Your task to perform on an android device: allow cookies in the chrome app Image 0: 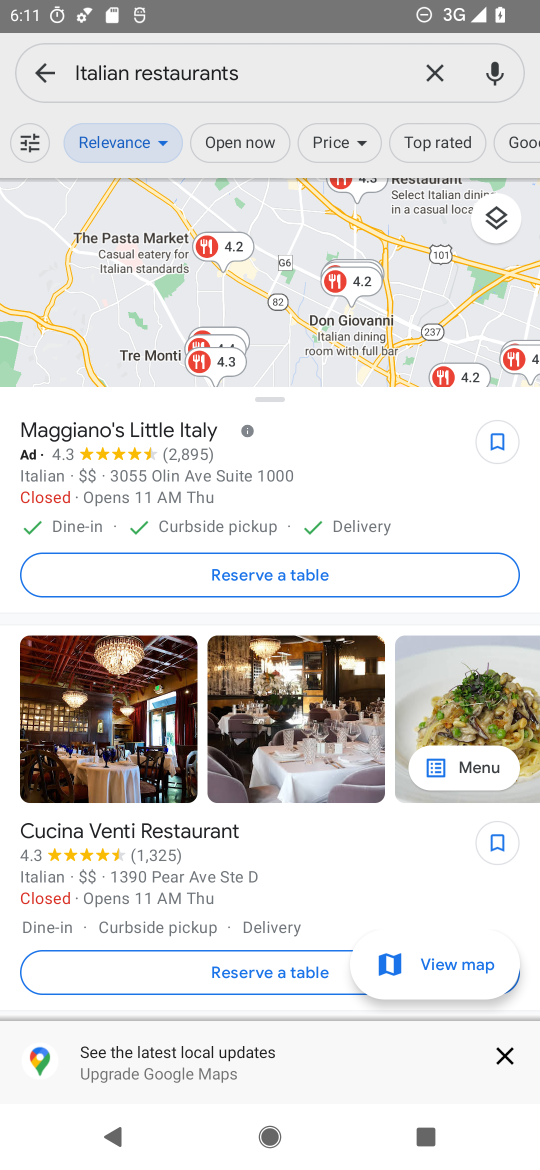
Step 0: press home button
Your task to perform on an android device: allow cookies in the chrome app Image 1: 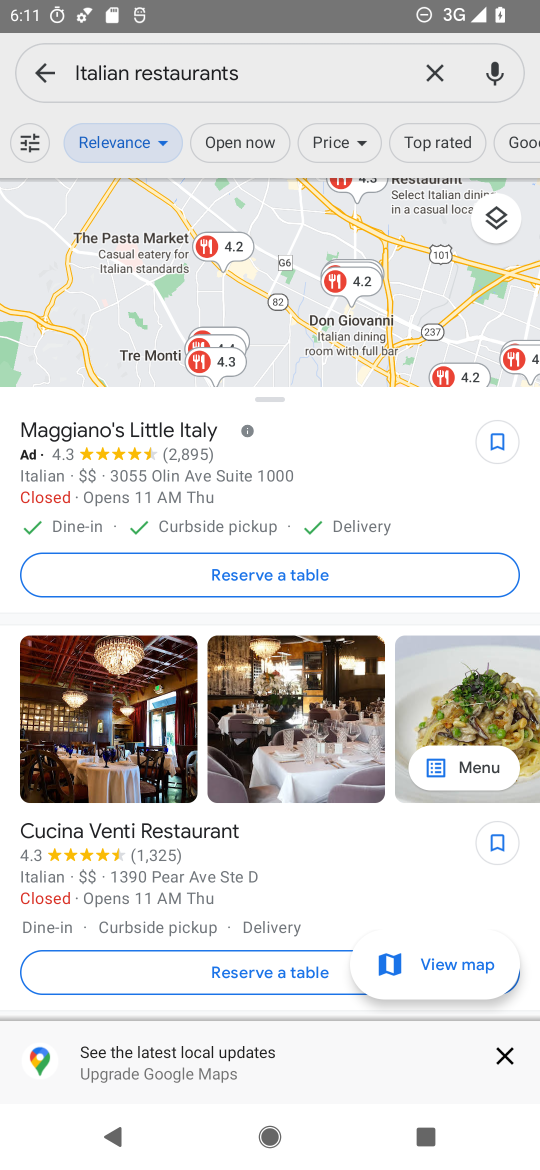
Step 1: press home button
Your task to perform on an android device: allow cookies in the chrome app Image 2: 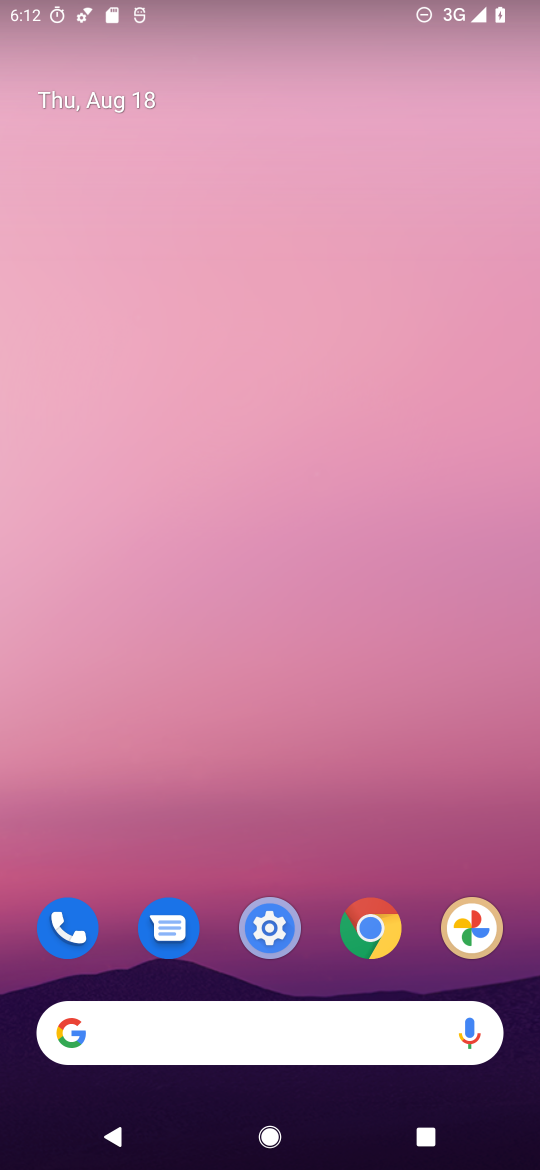
Step 2: drag from (306, 868) to (274, 19)
Your task to perform on an android device: allow cookies in the chrome app Image 3: 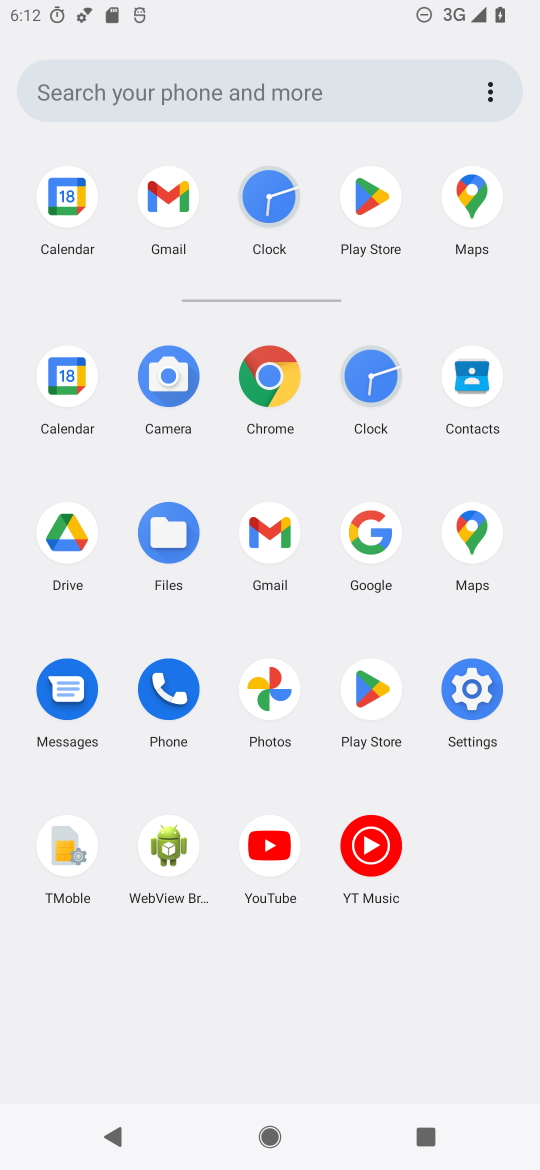
Step 3: click (283, 375)
Your task to perform on an android device: allow cookies in the chrome app Image 4: 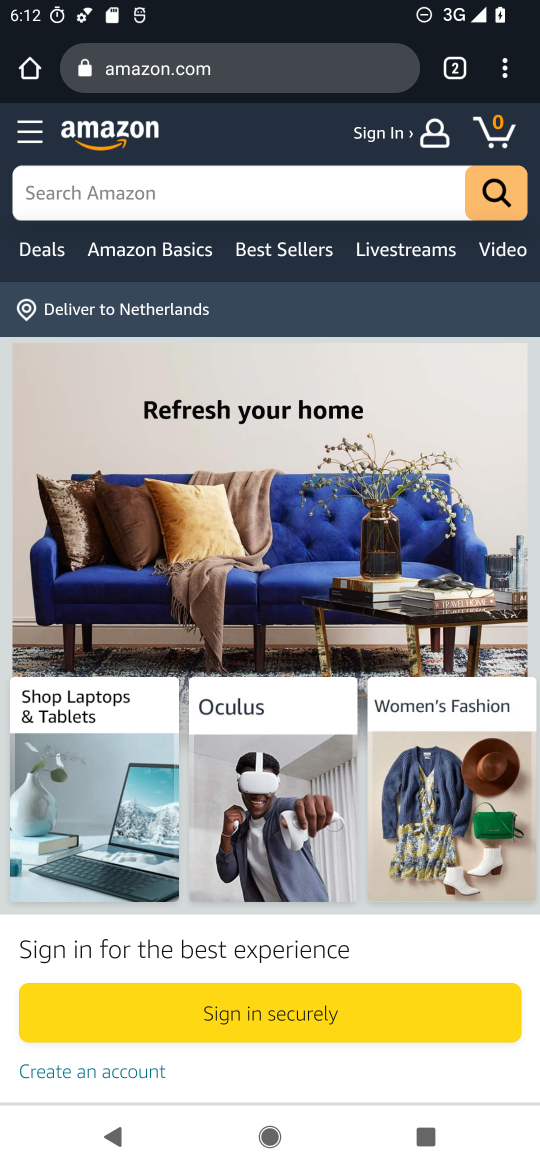
Step 4: drag from (514, 62) to (298, 920)
Your task to perform on an android device: allow cookies in the chrome app Image 5: 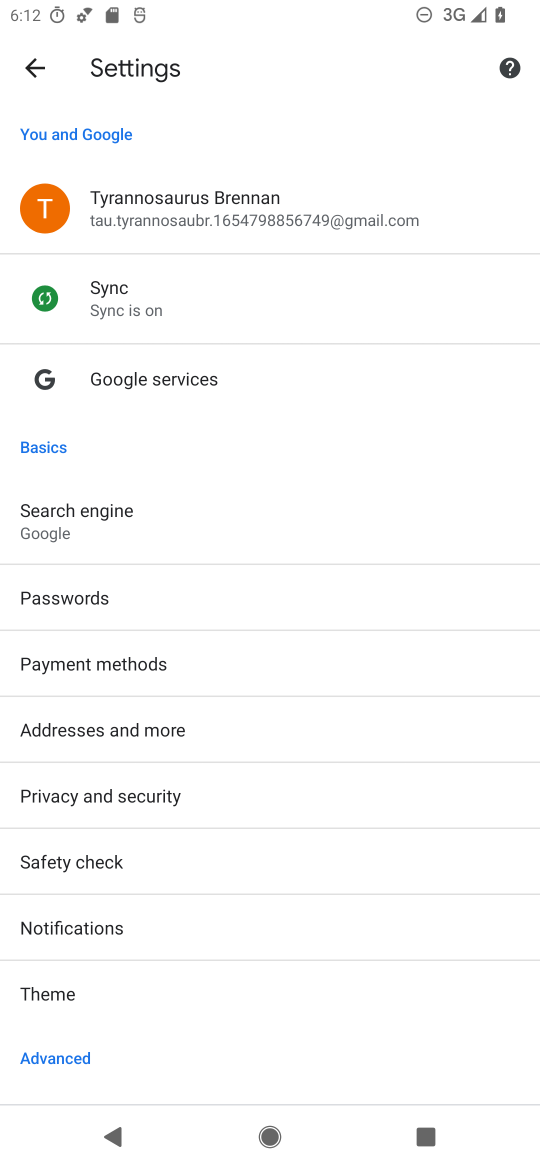
Step 5: drag from (286, 887) to (333, 180)
Your task to perform on an android device: allow cookies in the chrome app Image 6: 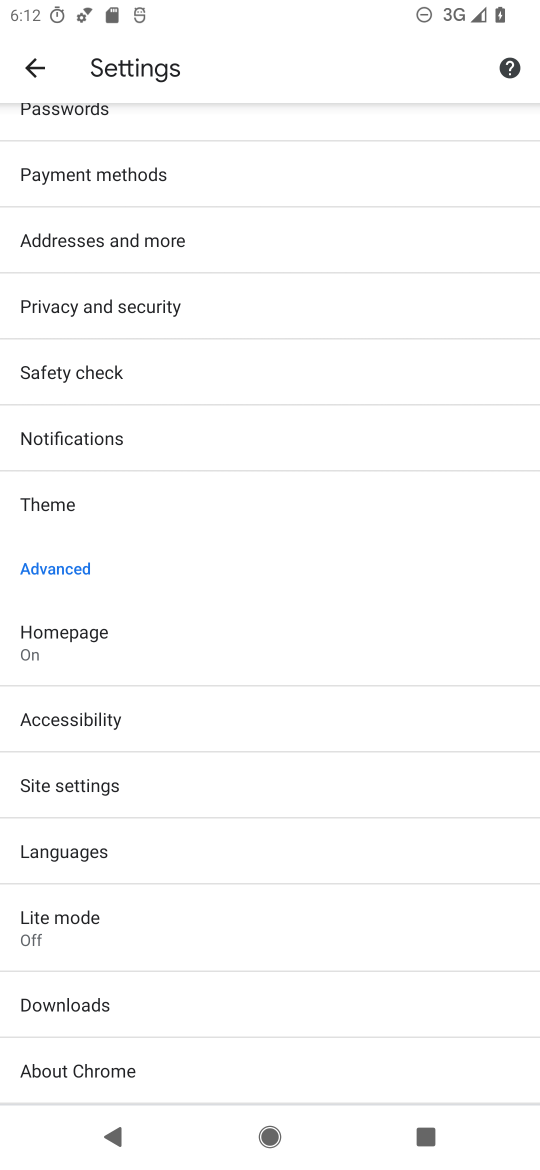
Step 6: click (116, 780)
Your task to perform on an android device: allow cookies in the chrome app Image 7: 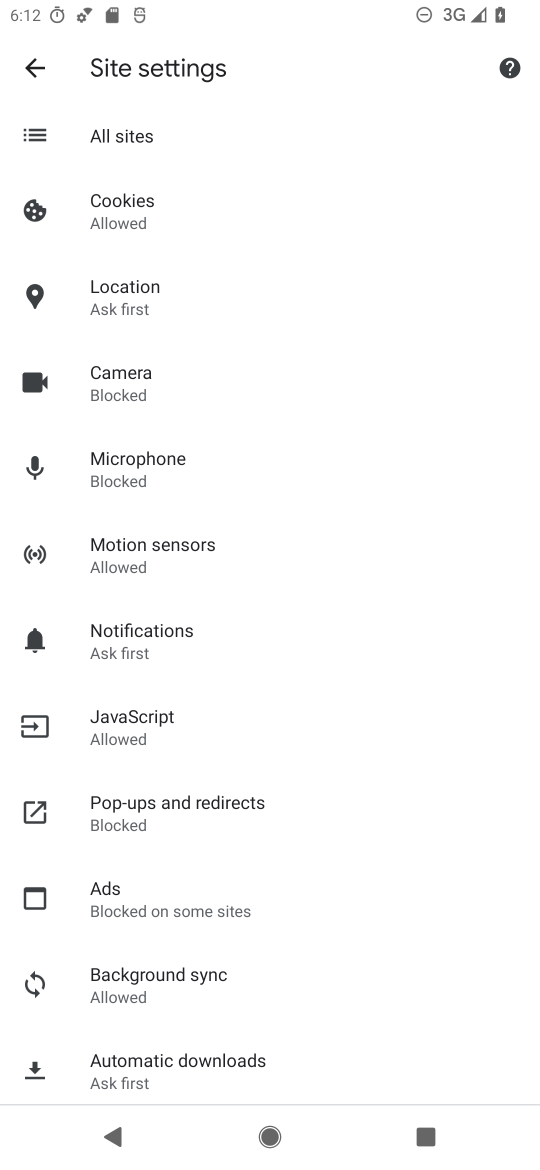
Step 7: click (119, 202)
Your task to perform on an android device: allow cookies in the chrome app Image 8: 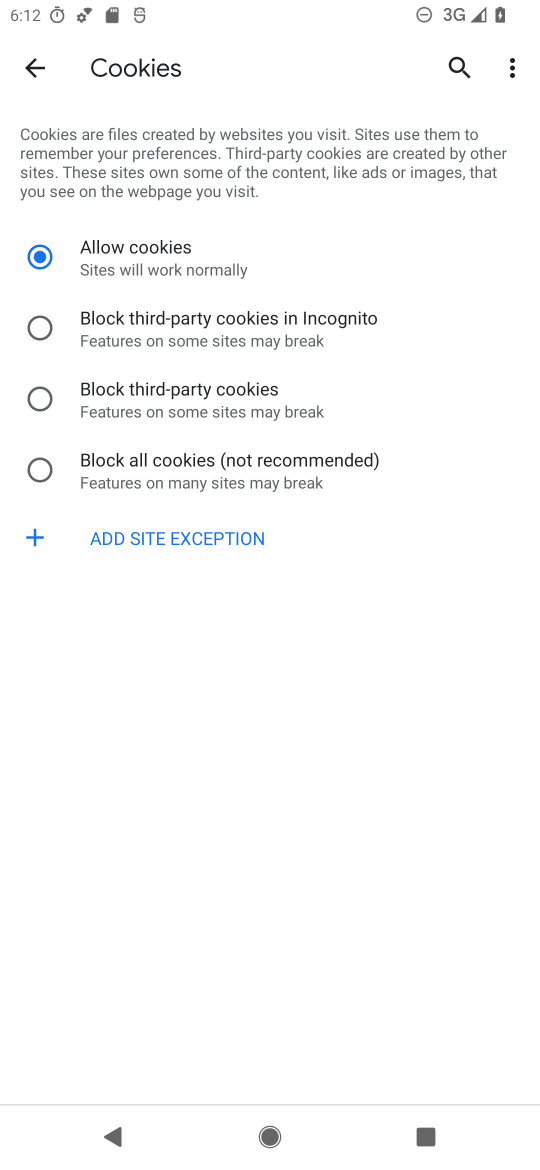
Step 8: task complete